Your task to perform on an android device: delete browsing data in the chrome app Image 0: 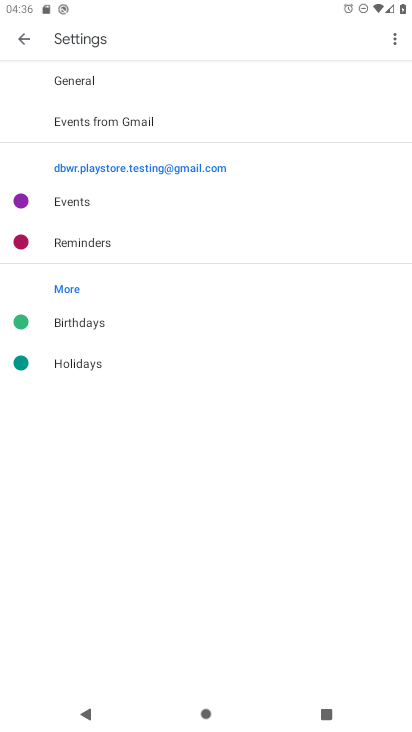
Step 0: press back button
Your task to perform on an android device: delete browsing data in the chrome app Image 1: 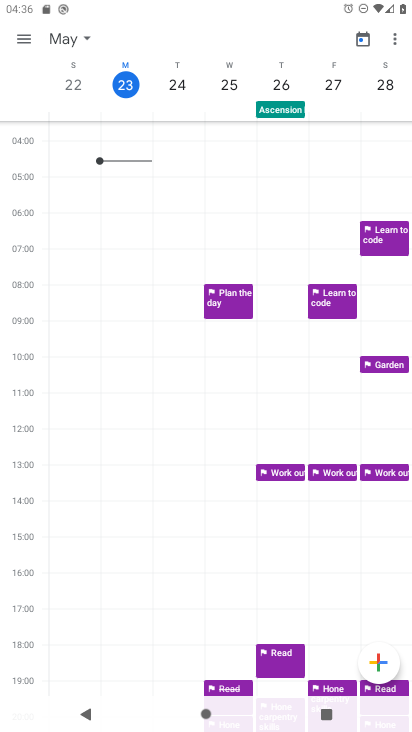
Step 1: press back button
Your task to perform on an android device: delete browsing data in the chrome app Image 2: 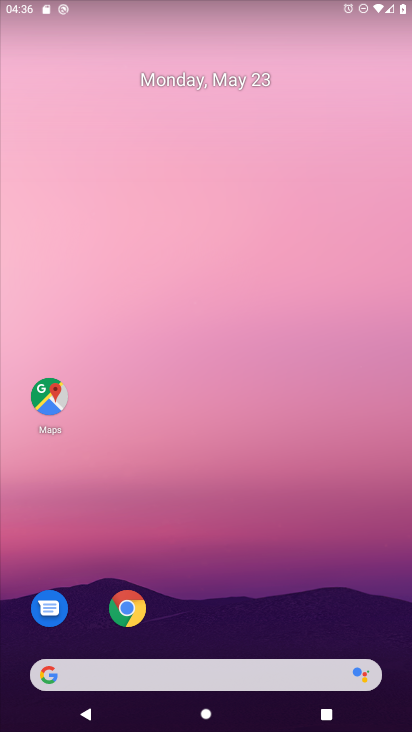
Step 2: click (130, 606)
Your task to perform on an android device: delete browsing data in the chrome app Image 3: 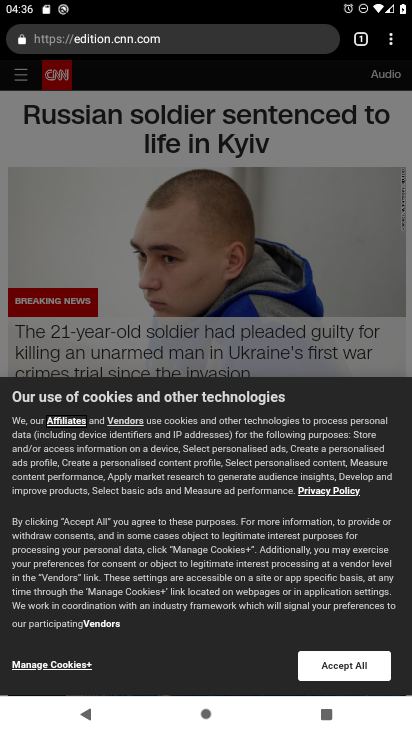
Step 3: click (392, 40)
Your task to perform on an android device: delete browsing data in the chrome app Image 4: 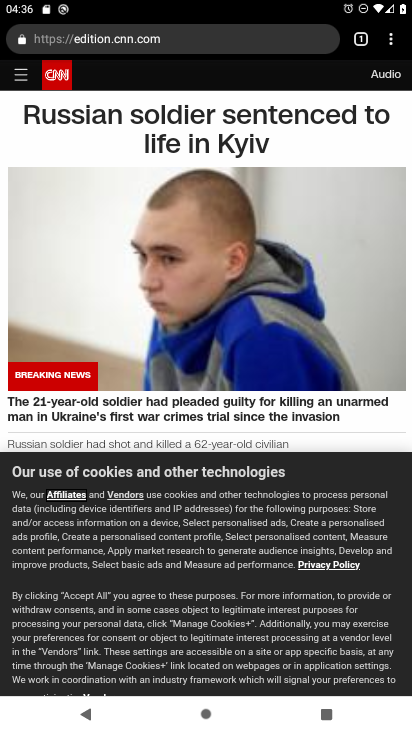
Step 4: click (393, 41)
Your task to perform on an android device: delete browsing data in the chrome app Image 5: 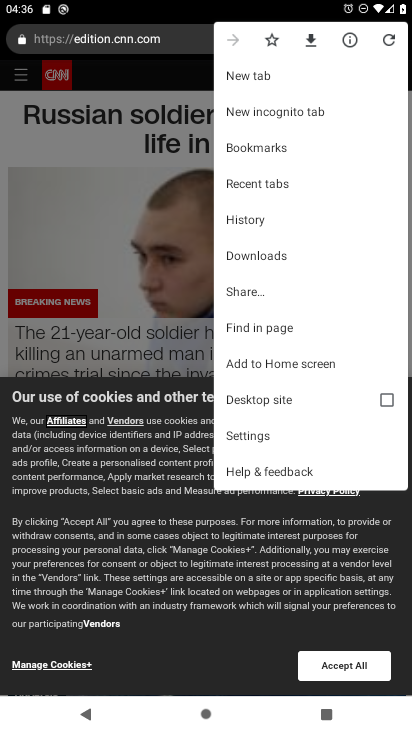
Step 5: click (247, 440)
Your task to perform on an android device: delete browsing data in the chrome app Image 6: 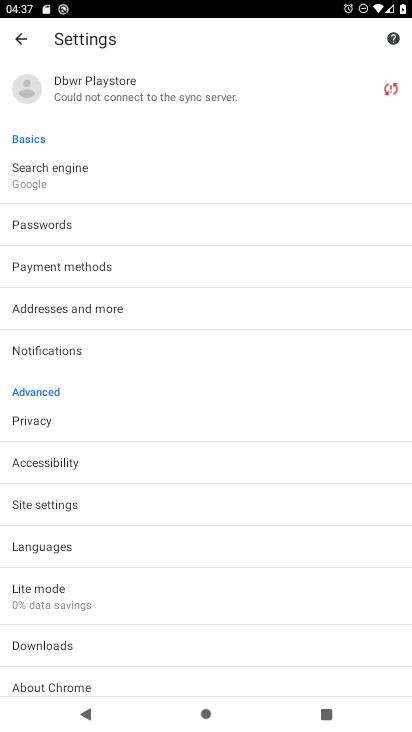
Step 6: click (36, 420)
Your task to perform on an android device: delete browsing data in the chrome app Image 7: 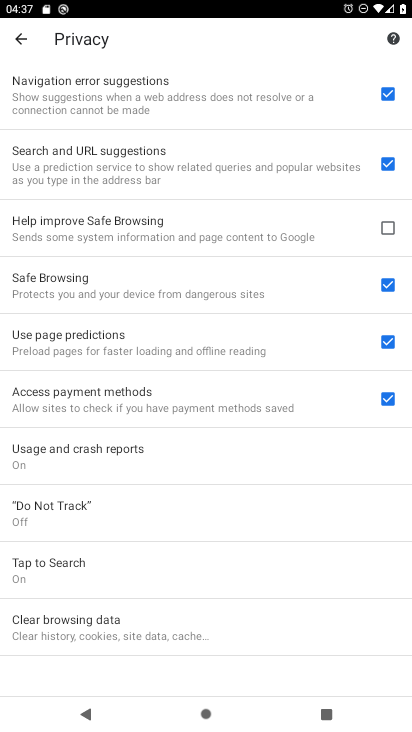
Step 7: click (88, 634)
Your task to perform on an android device: delete browsing data in the chrome app Image 8: 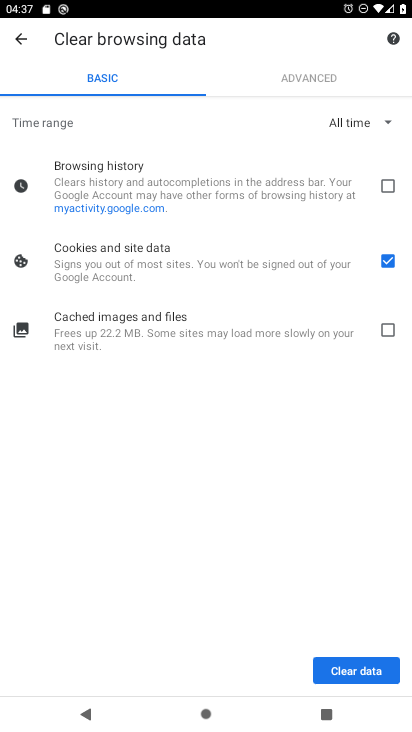
Step 8: click (378, 259)
Your task to perform on an android device: delete browsing data in the chrome app Image 9: 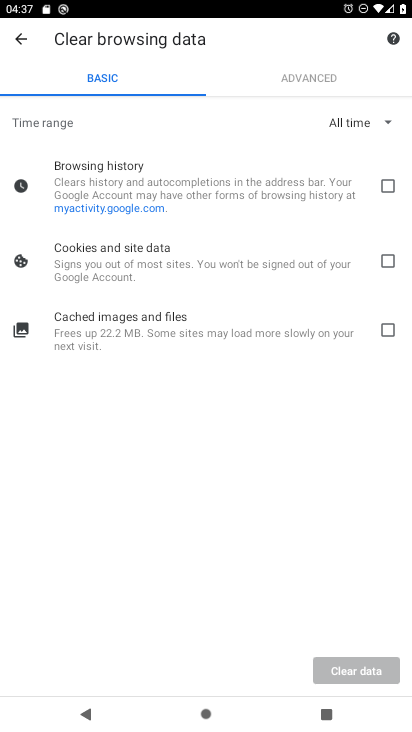
Step 9: click (391, 190)
Your task to perform on an android device: delete browsing data in the chrome app Image 10: 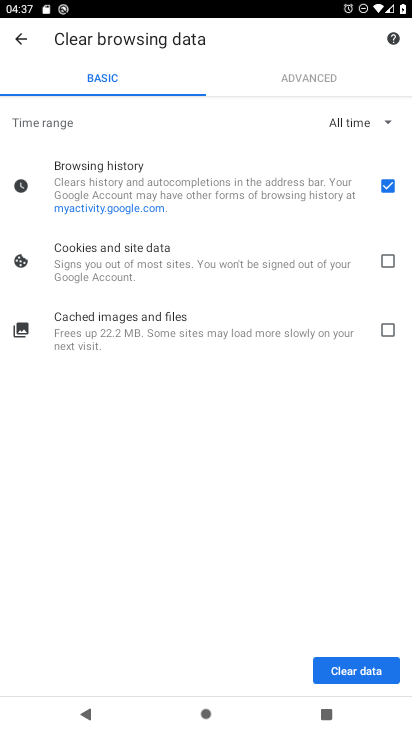
Step 10: click (361, 667)
Your task to perform on an android device: delete browsing data in the chrome app Image 11: 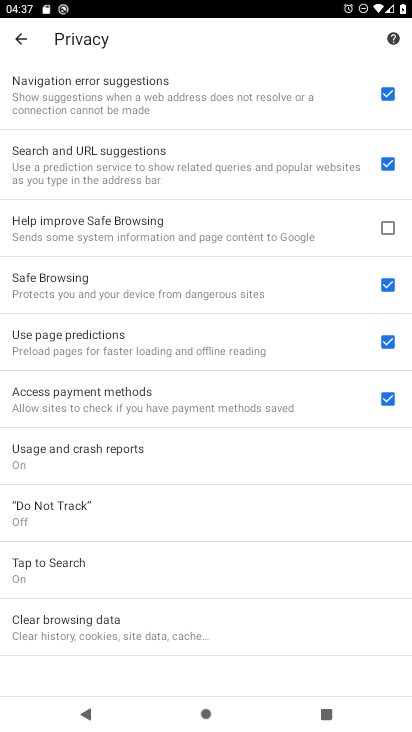
Step 11: task complete